Your task to perform on an android device: Open the calendar and show me this week's events? Image 0: 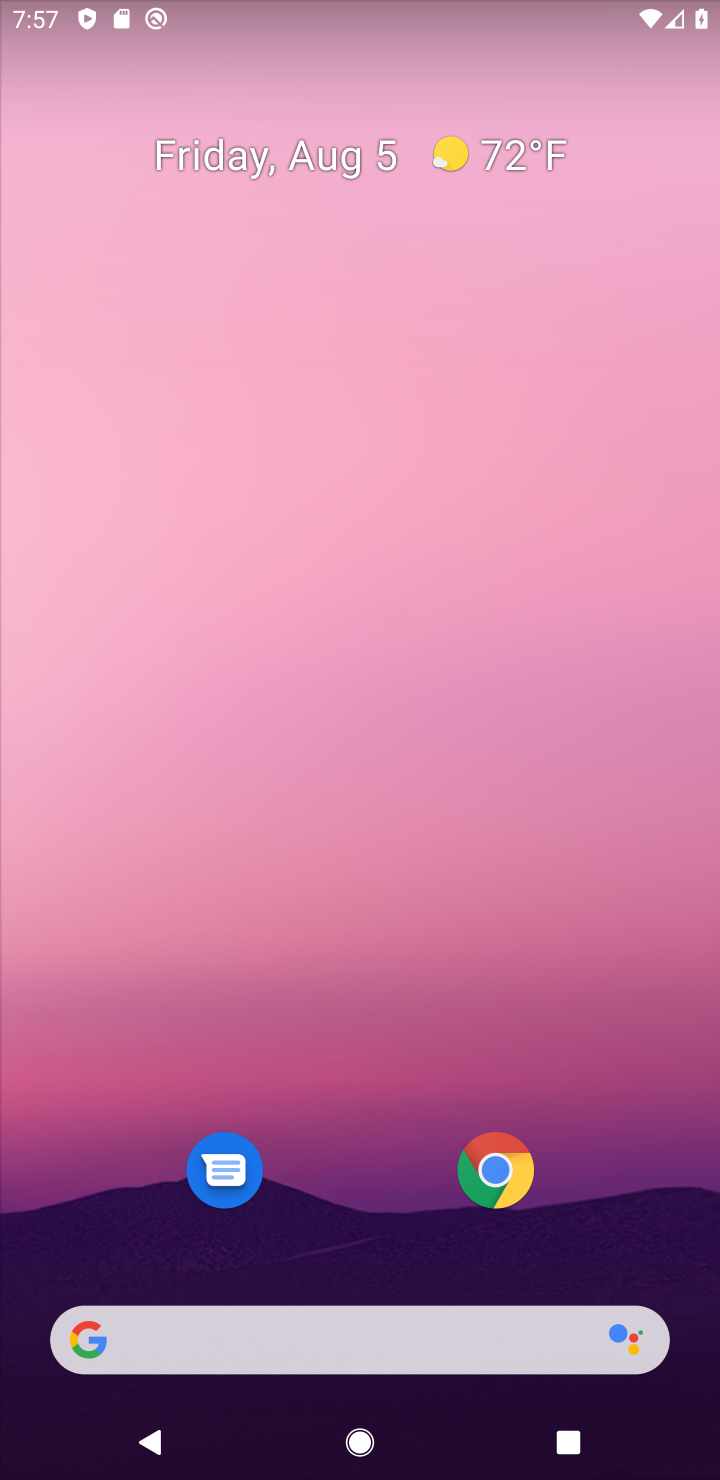
Step 0: drag from (663, 1230) to (521, 524)
Your task to perform on an android device: Open the calendar and show me this week's events? Image 1: 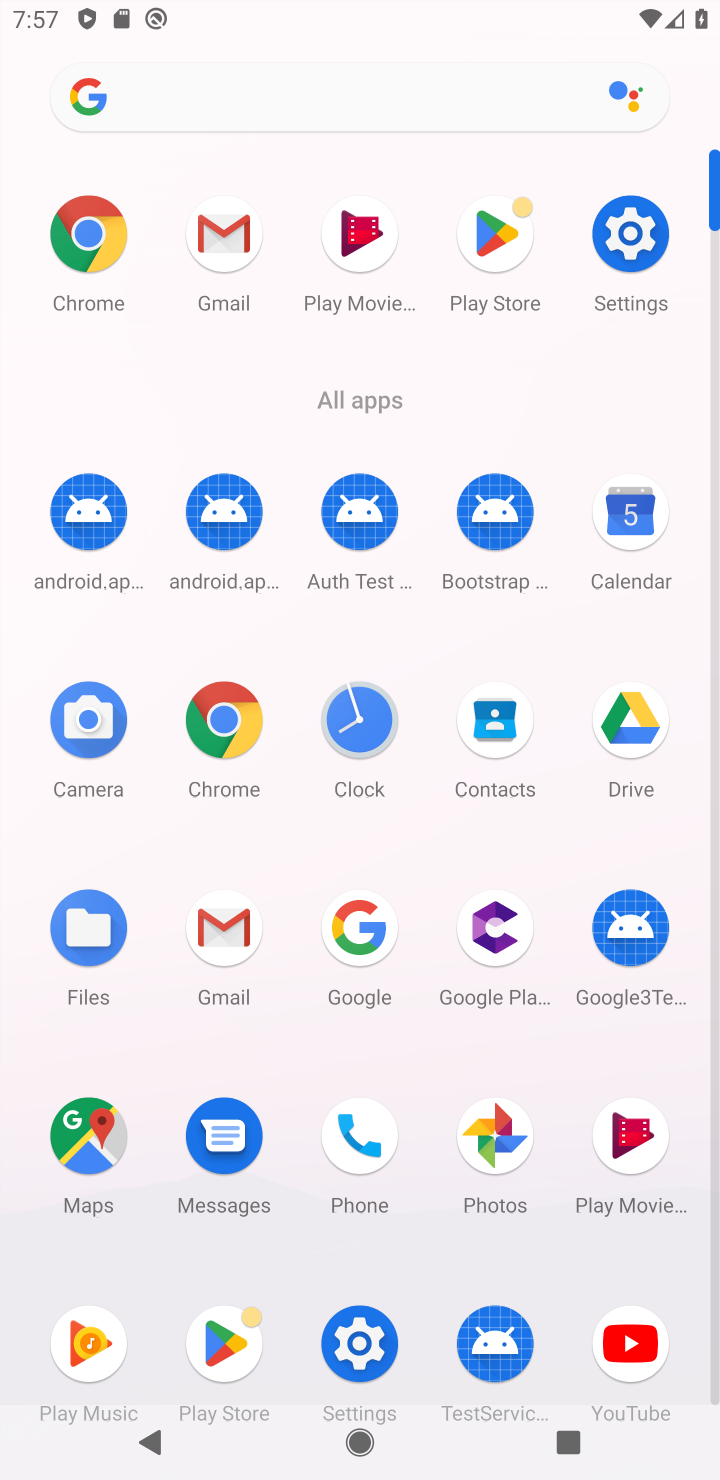
Step 1: click (634, 518)
Your task to perform on an android device: Open the calendar and show me this week's events? Image 2: 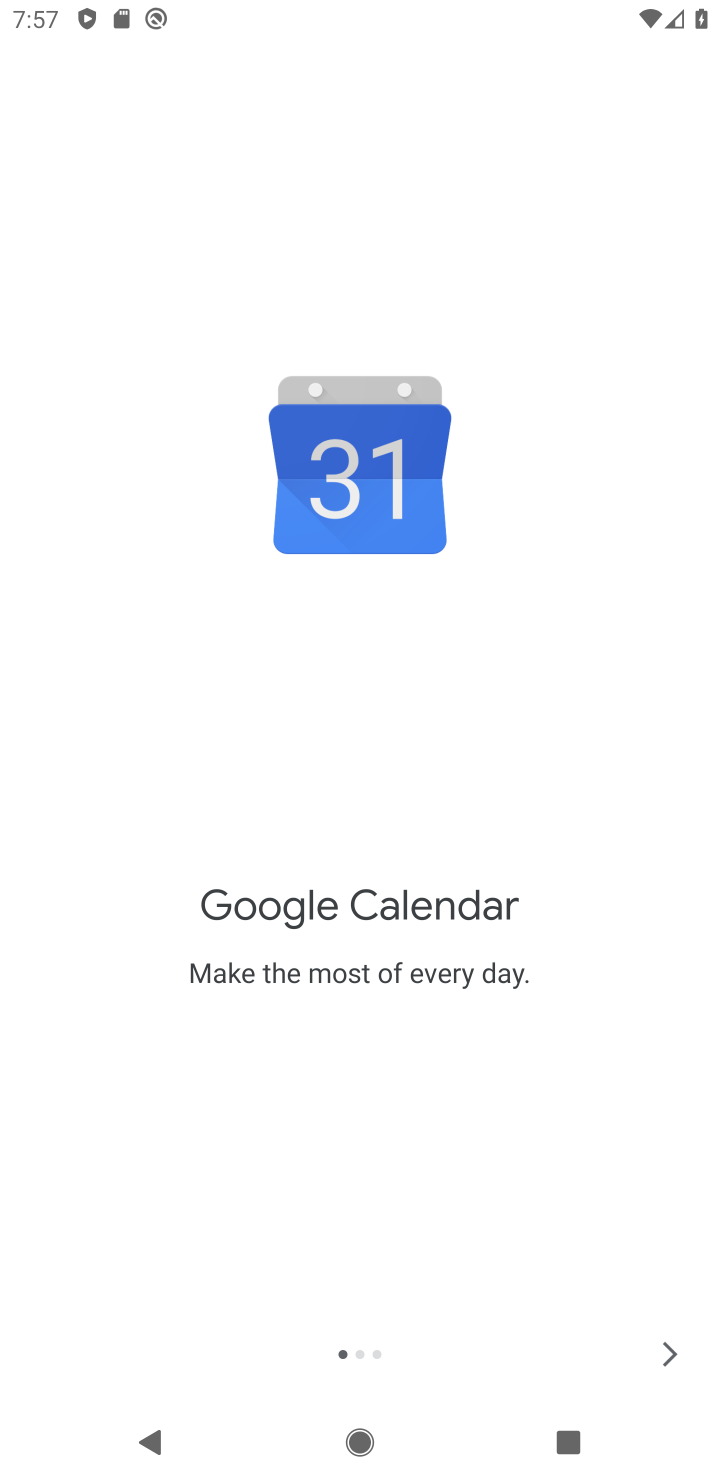
Step 2: click (676, 1351)
Your task to perform on an android device: Open the calendar and show me this week's events? Image 3: 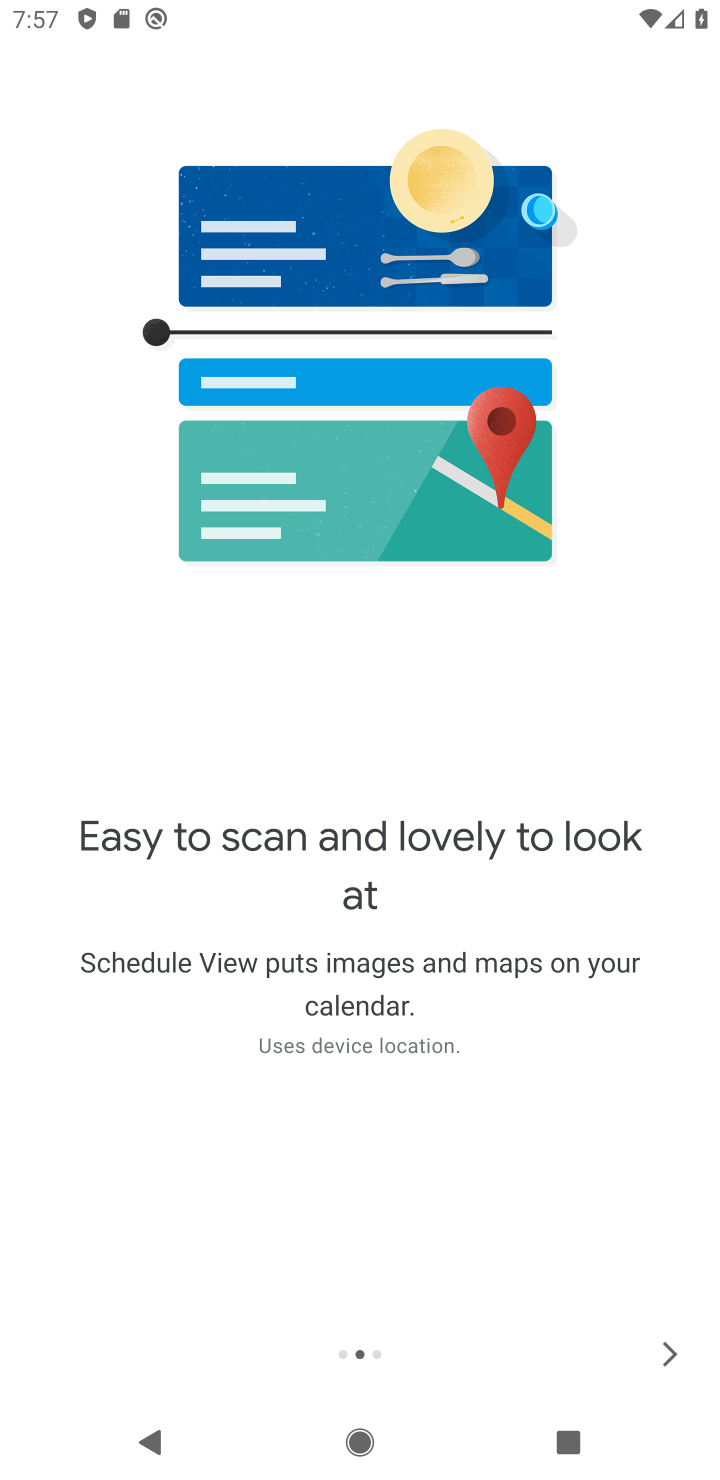
Step 3: click (670, 1351)
Your task to perform on an android device: Open the calendar and show me this week's events? Image 4: 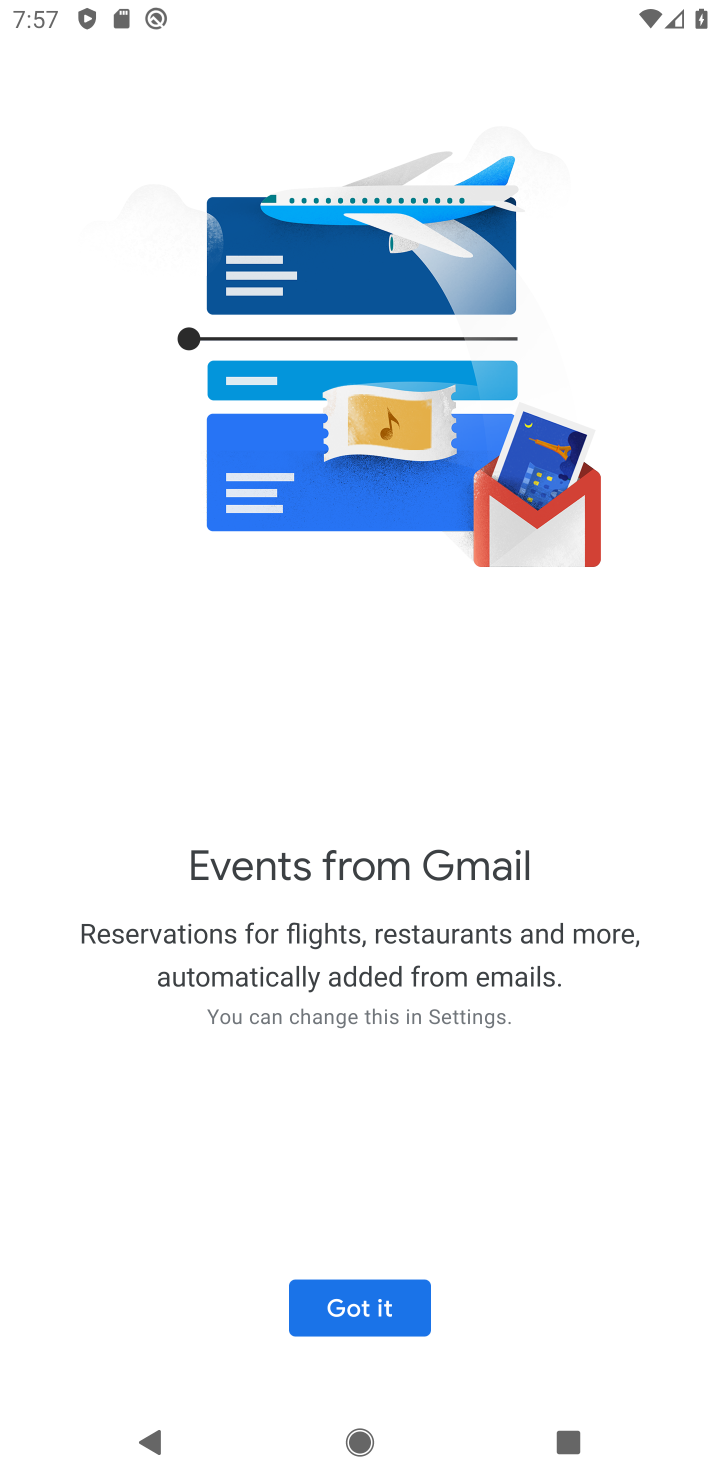
Step 4: click (342, 1308)
Your task to perform on an android device: Open the calendar and show me this week's events? Image 5: 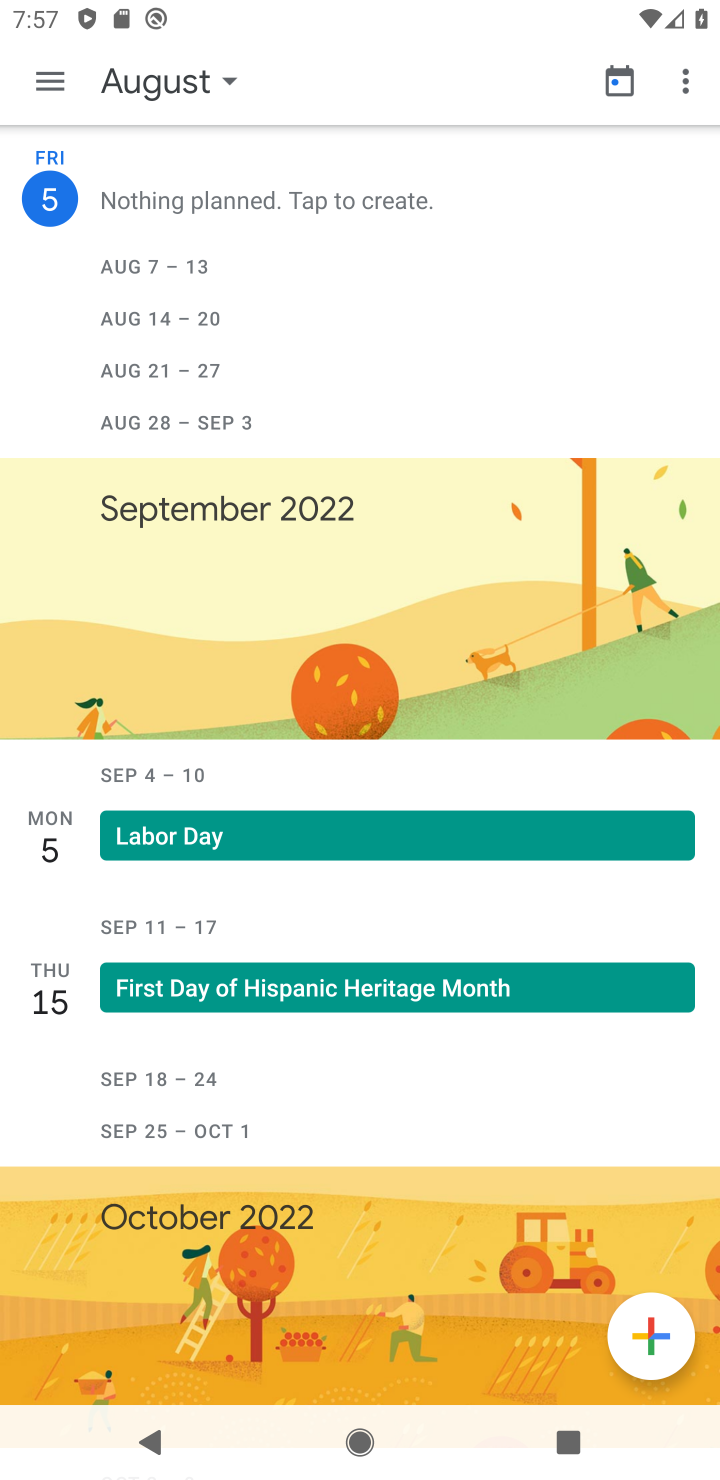
Step 5: click (46, 75)
Your task to perform on an android device: Open the calendar and show me this week's events? Image 6: 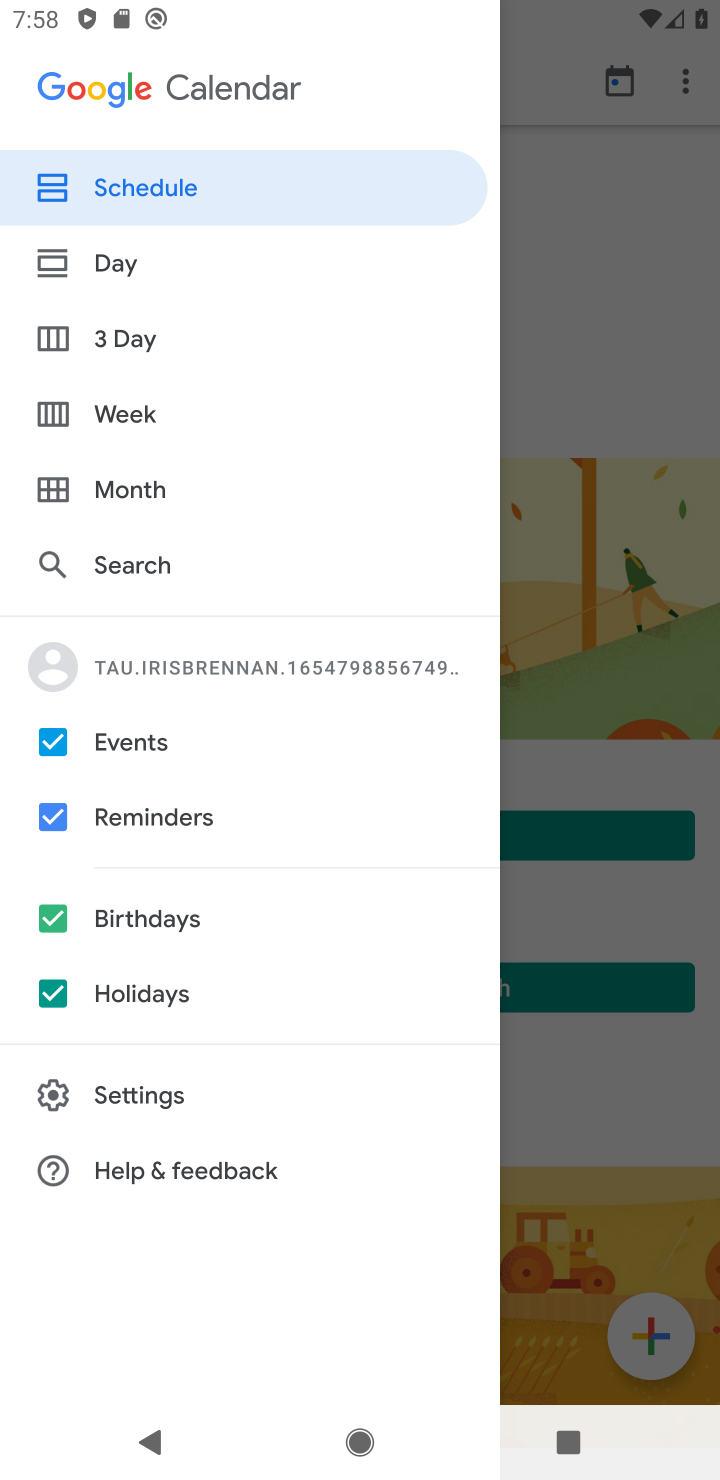
Step 6: click (124, 419)
Your task to perform on an android device: Open the calendar and show me this week's events? Image 7: 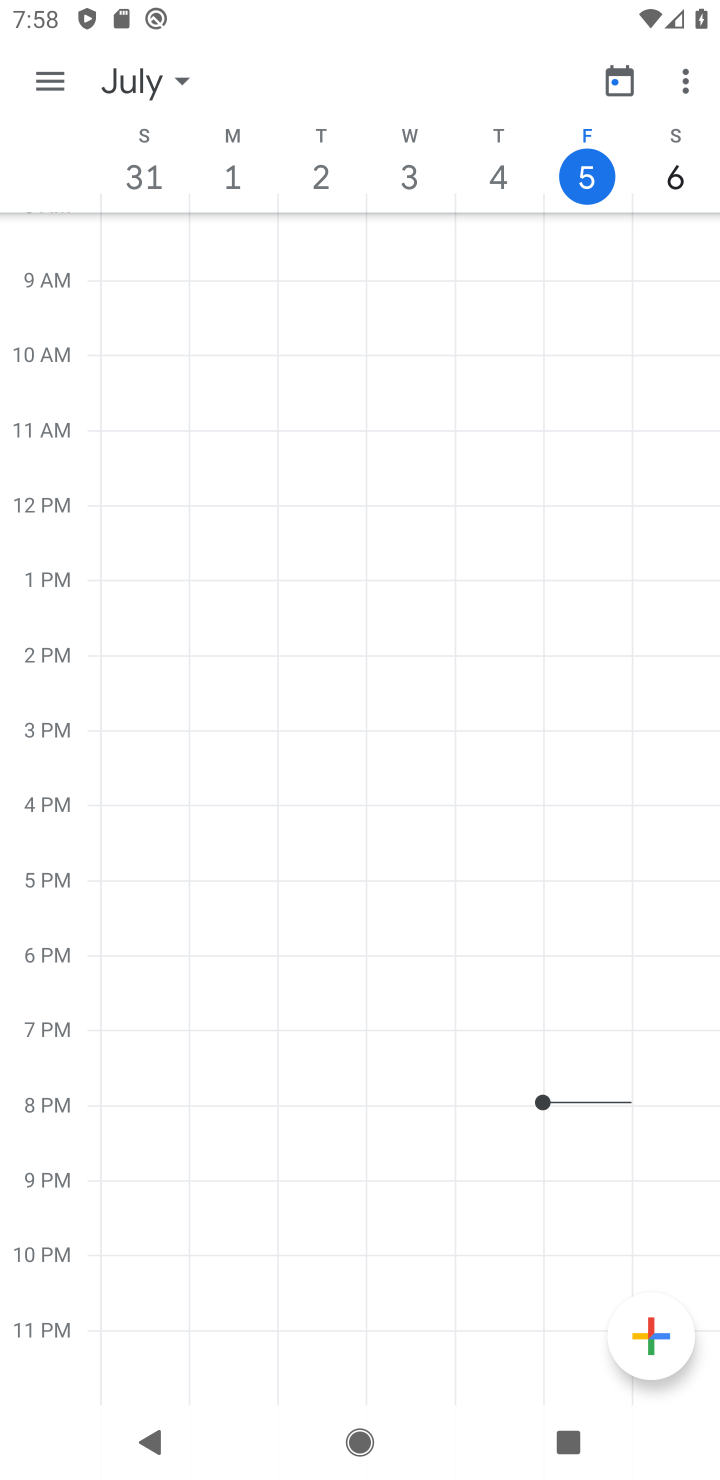
Step 7: task complete